Your task to perform on an android device: Open Chrome and go to settings Image 0: 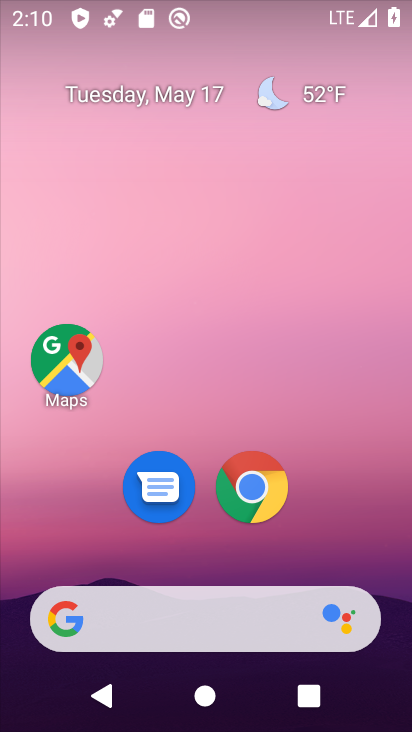
Step 0: click (248, 479)
Your task to perform on an android device: Open Chrome and go to settings Image 1: 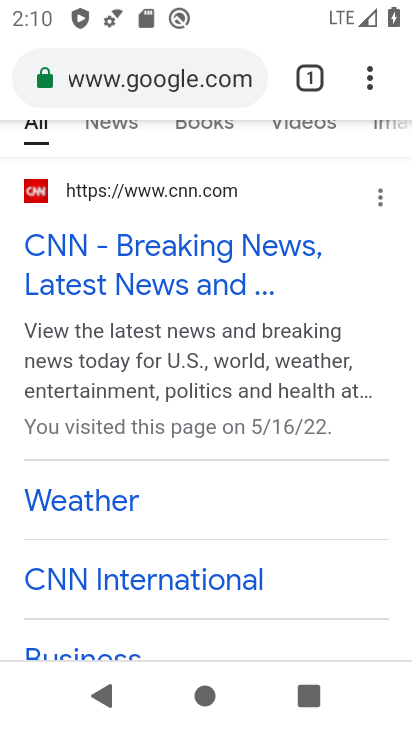
Step 1: click (363, 76)
Your task to perform on an android device: Open Chrome and go to settings Image 2: 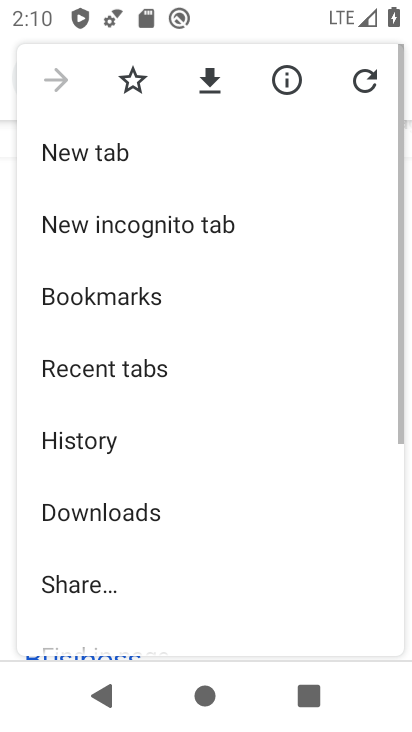
Step 2: drag from (241, 629) to (225, 348)
Your task to perform on an android device: Open Chrome and go to settings Image 3: 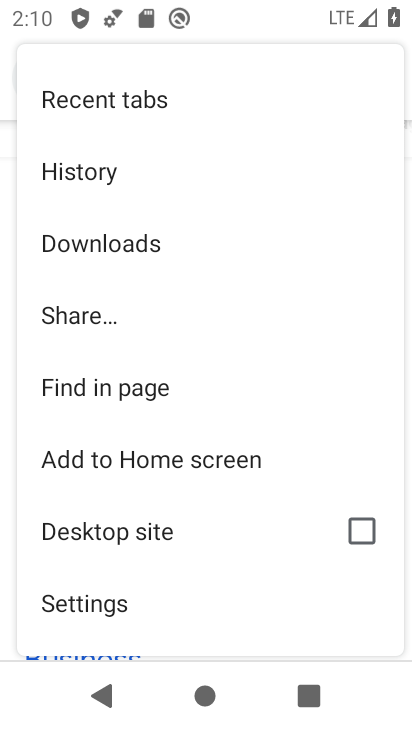
Step 3: click (76, 596)
Your task to perform on an android device: Open Chrome and go to settings Image 4: 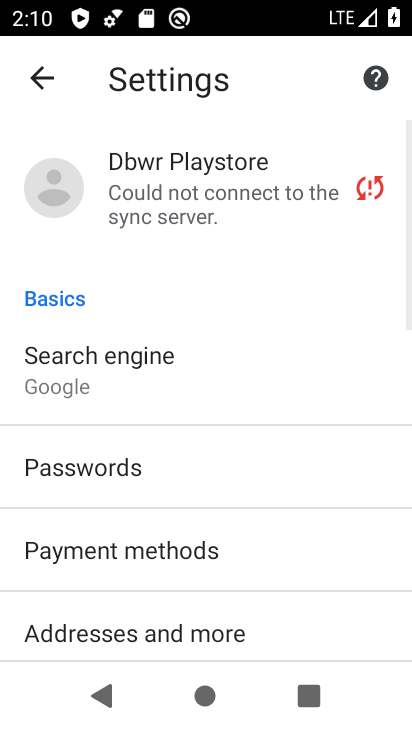
Step 4: task complete